Your task to perform on an android device: move an email to a new category in the gmail app Image 0: 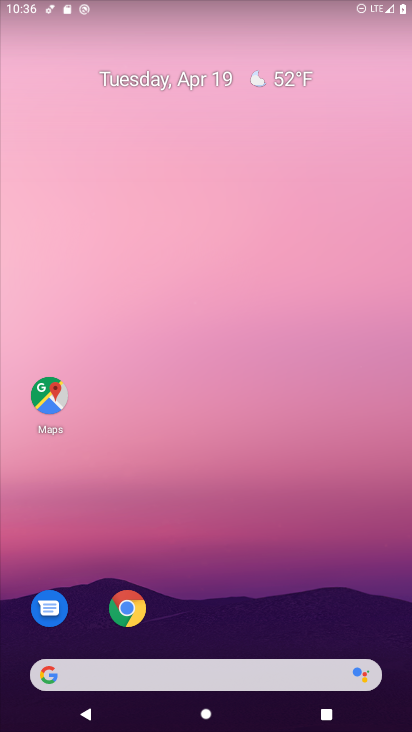
Step 0: drag from (262, 605) to (285, 280)
Your task to perform on an android device: move an email to a new category in the gmail app Image 1: 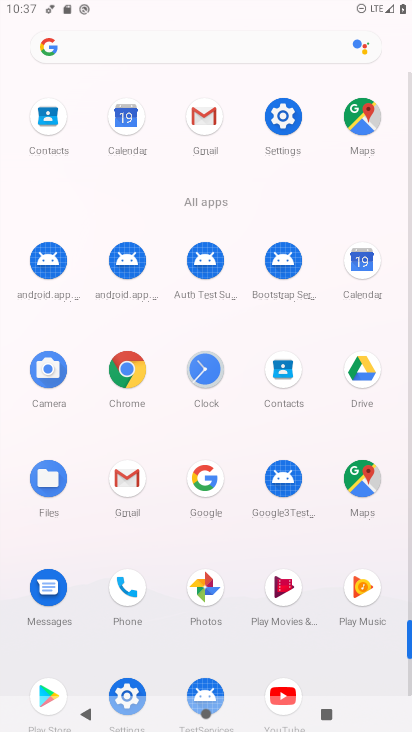
Step 1: click (204, 109)
Your task to perform on an android device: move an email to a new category in the gmail app Image 2: 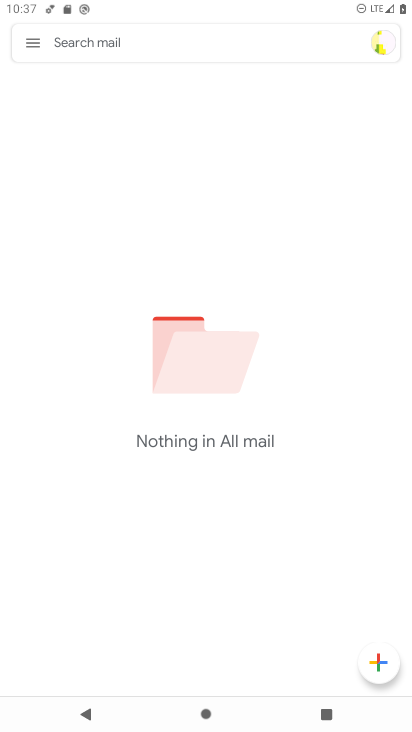
Step 2: task complete